Your task to perform on an android device: search for starred emails in the gmail app Image 0: 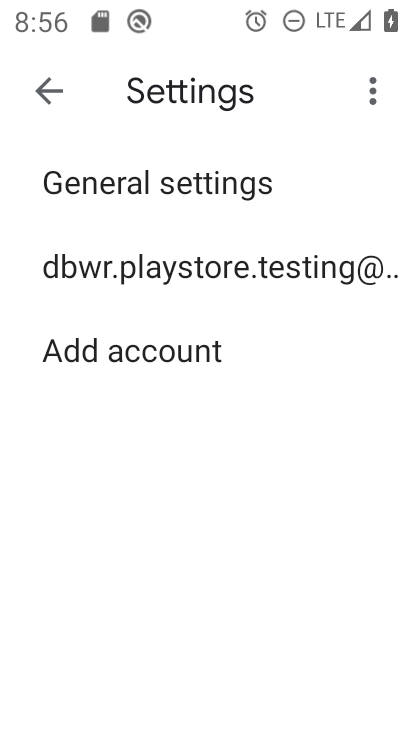
Step 0: press home button
Your task to perform on an android device: search for starred emails in the gmail app Image 1: 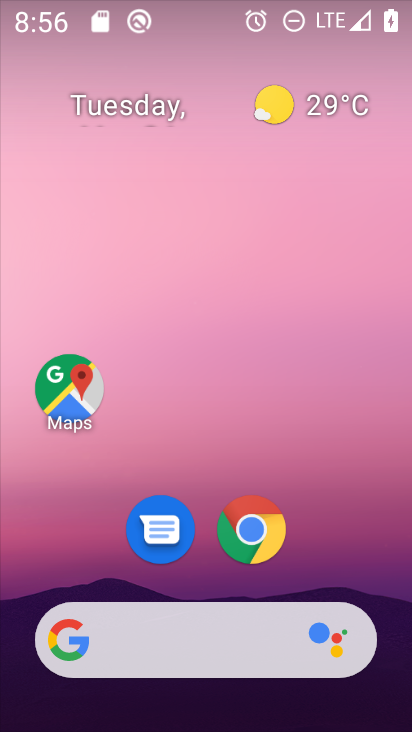
Step 1: drag from (388, 638) to (275, 73)
Your task to perform on an android device: search for starred emails in the gmail app Image 2: 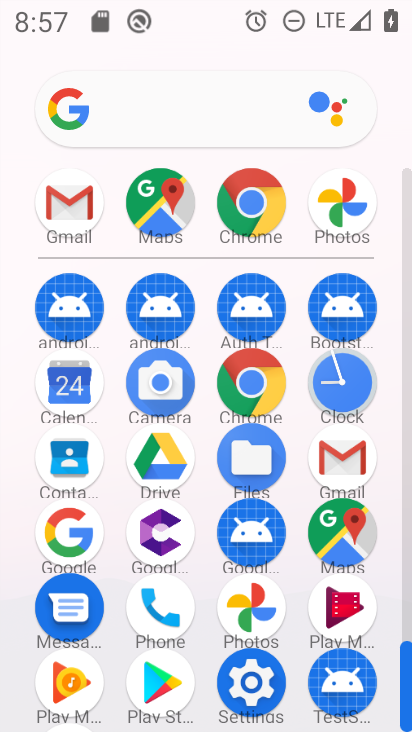
Step 2: click (354, 454)
Your task to perform on an android device: search for starred emails in the gmail app Image 3: 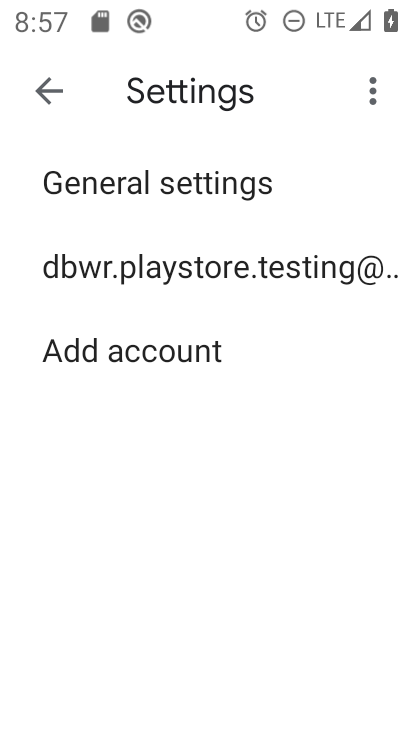
Step 3: press back button
Your task to perform on an android device: search for starred emails in the gmail app Image 4: 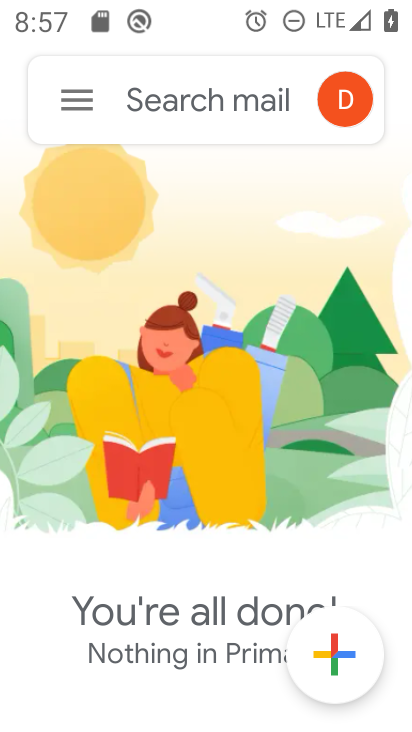
Step 4: click (73, 88)
Your task to perform on an android device: search for starred emails in the gmail app Image 5: 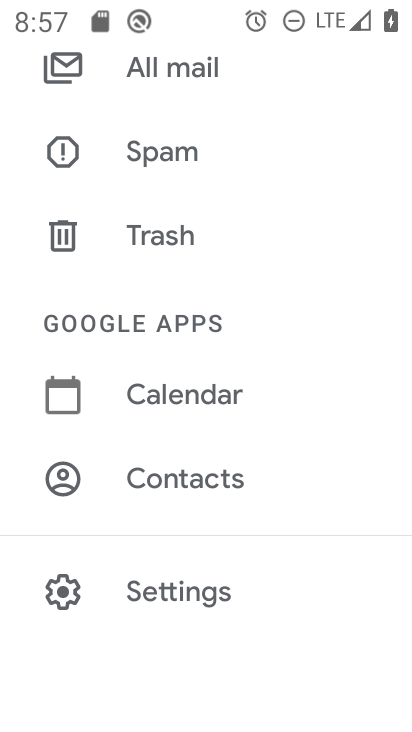
Step 5: drag from (204, 119) to (227, 563)
Your task to perform on an android device: search for starred emails in the gmail app Image 6: 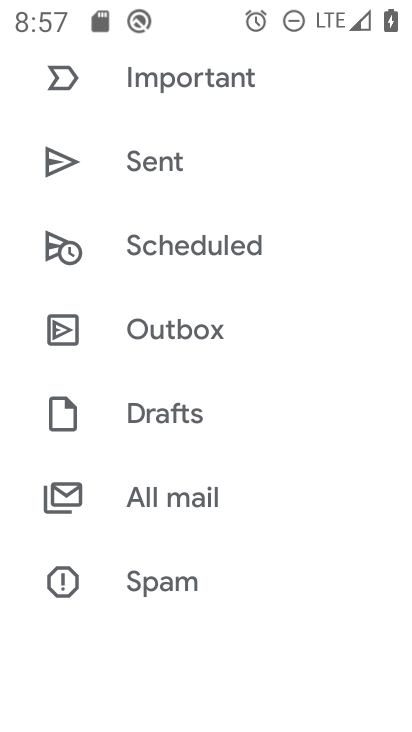
Step 6: drag from (188, 183) to (235, 512)
Your task to perform on an android device: search for starred emails in the gmail app Image 7: 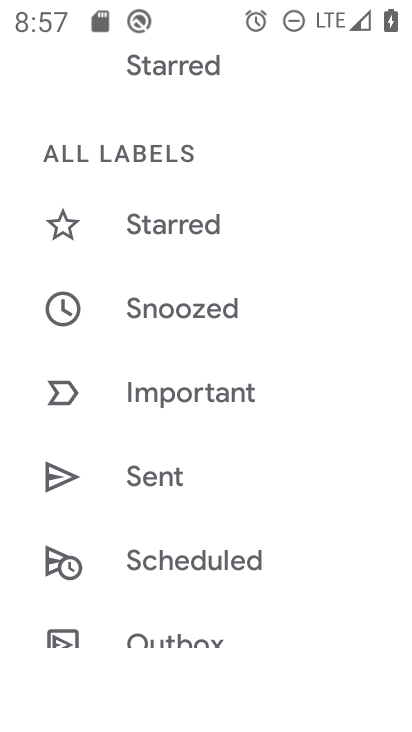
Step 7: click (197, 227)
Your task to perform on an android device: search for starred emails in the gmail app Image 8: 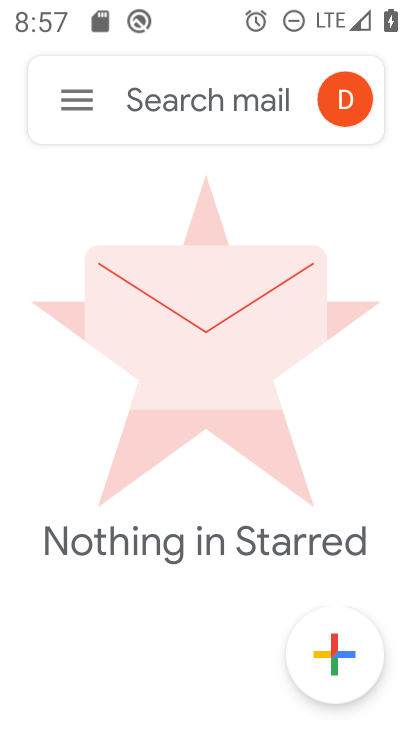
Step 8: task complete